Your task to perform on an android device: Go to privacy settings Image 0: 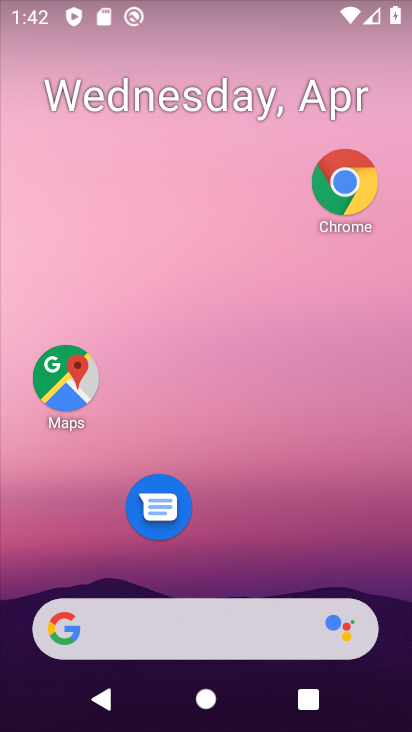
Step 0: drag from (237, 711) to (235, 11)
Your task to perform on an android device: Go to privacy settings Image 1: 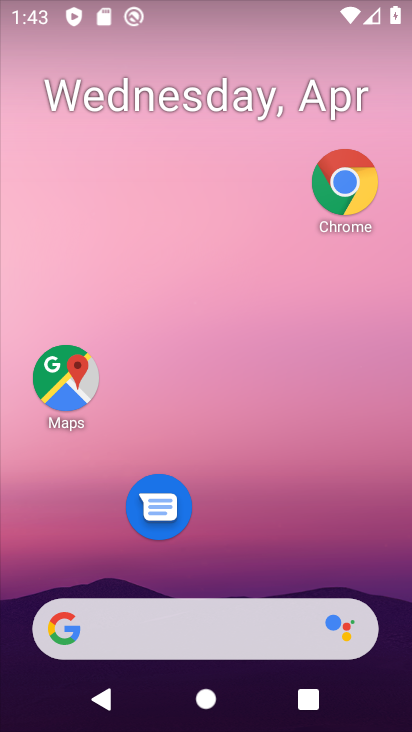
Step 1: drag from (248, 566) to (237, 11)
Your task to perform on an android device: Go to privacy settings Image 2: 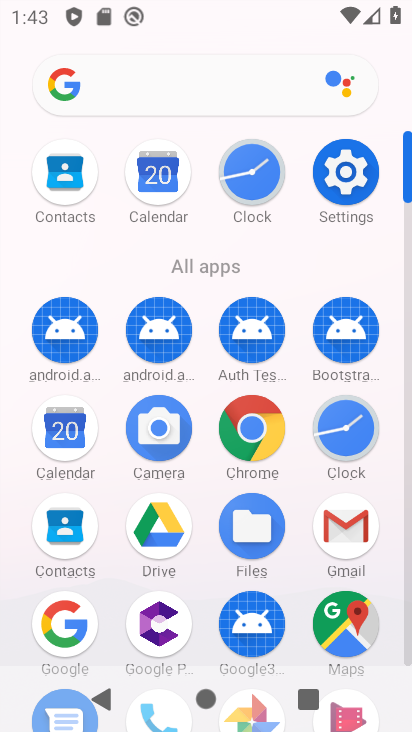
Step 2: click (349, 151)
Your task to perform on an android device: Go to privacy settings Image 3: 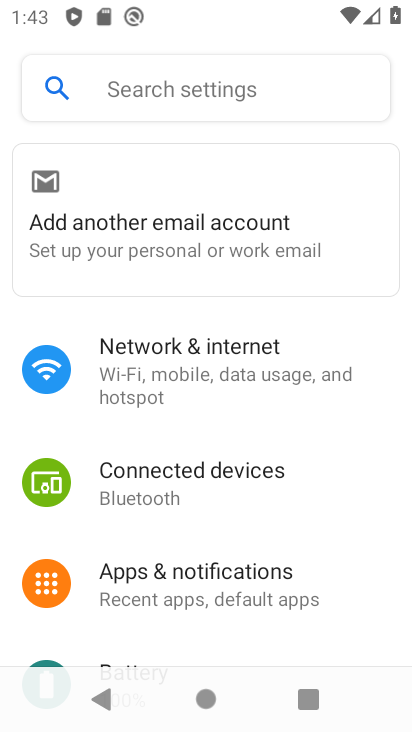
Step 3: drag from (279, 551) to (245, 83)
Your task to perform on an android device: Go to privacy settings Image 4: 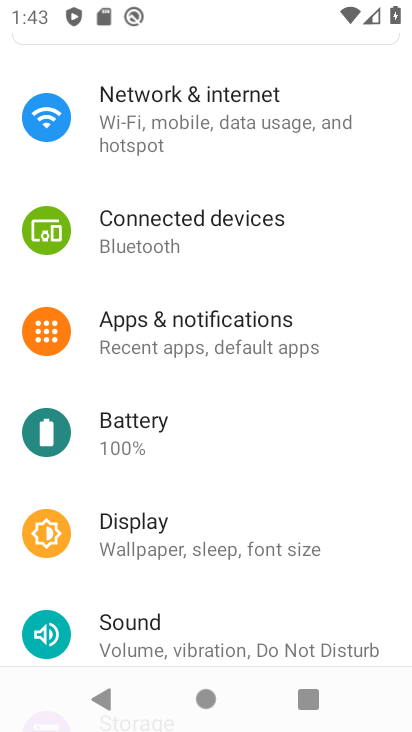
Step 4: drag from (319, 568) to (210, 1)
Your task to perform on an android device: Go to privacy settings Image 5: 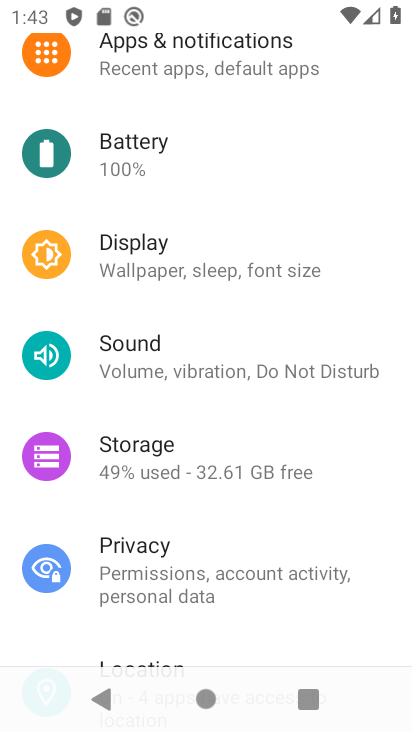
Step 5: click (204, 561)
Your task to perform on an android device: Go to privacy settings Image 6: 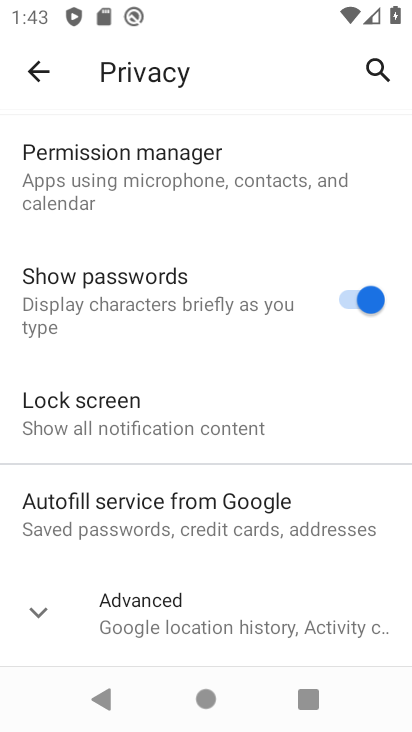
Step 6: task complete